Your task to perform on an android device: What is the news today? Image 0: 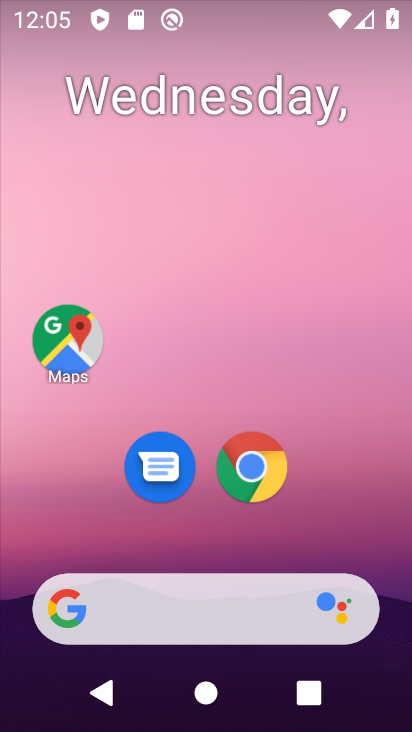
Step 0: drag from (193, 539) to (206, 125)
Your task to perform on an android device: What is the news today? Image 1: 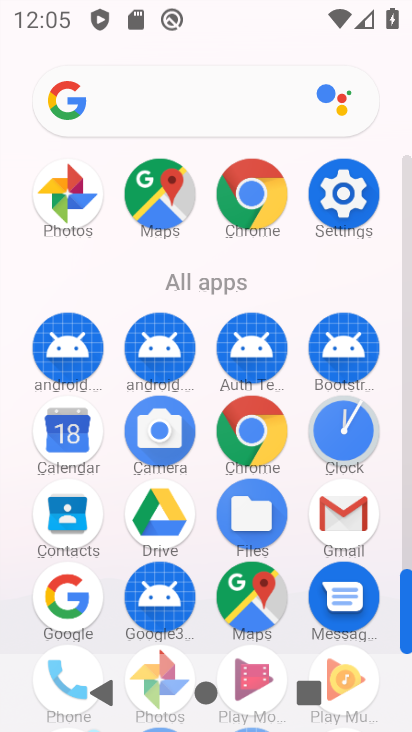
Step 1: click (235, 99)
Your task to perform on an android device: What is the news today? Image 2: 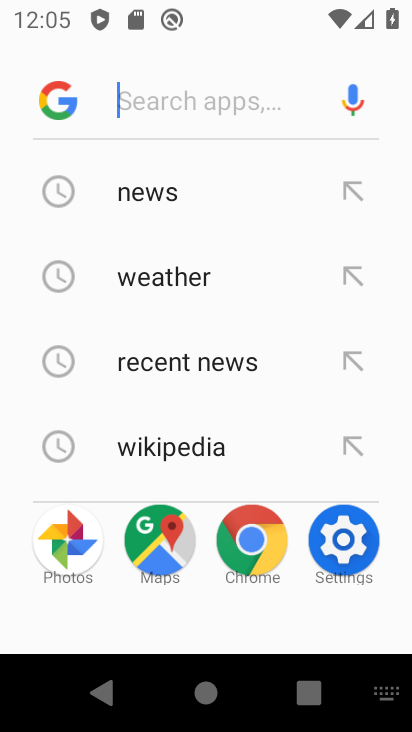
Step 2: type "news today"
Your task to perform on an android device: What is the news today? Image 3: 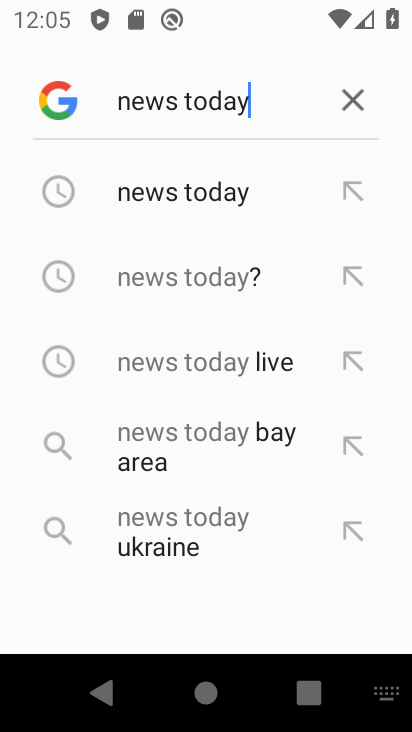
Step 3: click (213, 269)
Your task to perform on an android device: What is the news today? Image 4: 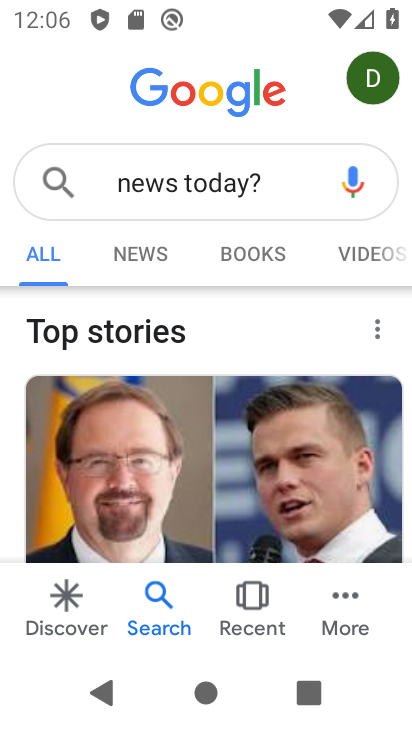
Step 4: task complete